Your task to perform on an android device: Go to location settings Image 0: 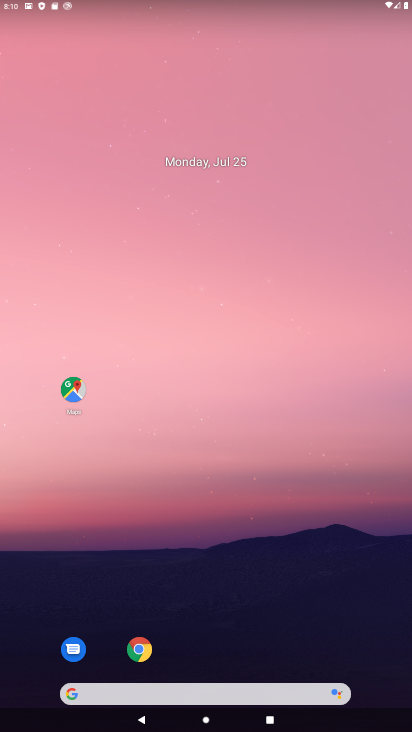
Step 0: drag from (257, 654) to (381, 6)
Your task to perform on an android device: Go to location settings Image 1: 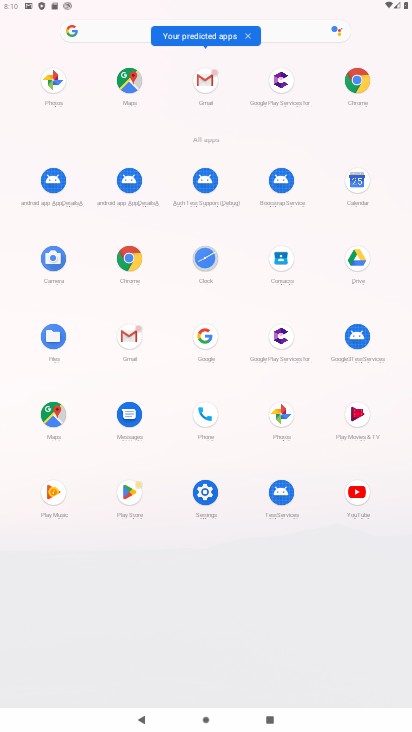
Step 1: click (205, 484)
Your task to perform on an android device: Go to location settings Image 2: 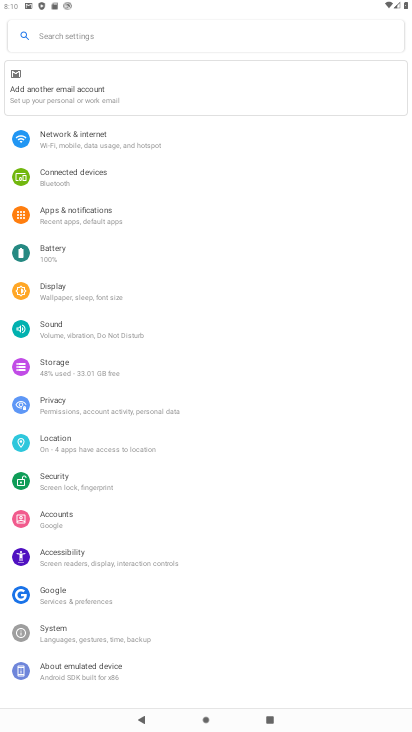
Step 2: click (66, 449)
Your task to perform on an android device: Go to location settings Image 3: 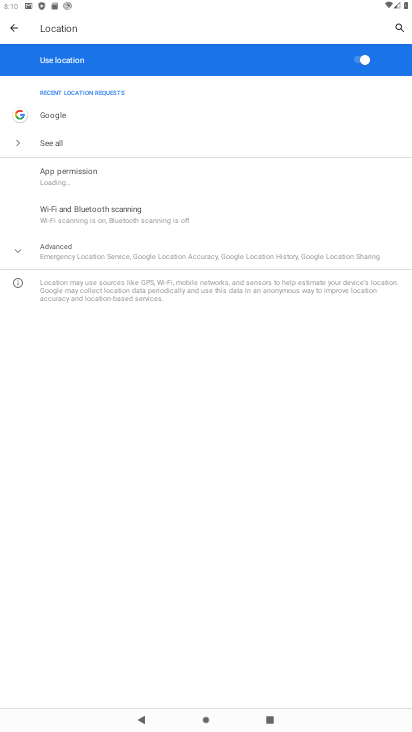
Step 3: task complete